Your task to perform on an android device: turn on wifi Image 0: 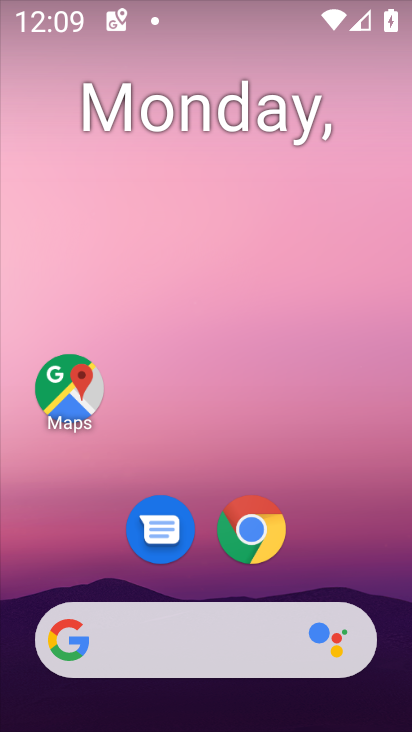
Step 0: drag from (245, 663) to (316, 72)
Your task to perform on an android device: turn on wifi Image 1: 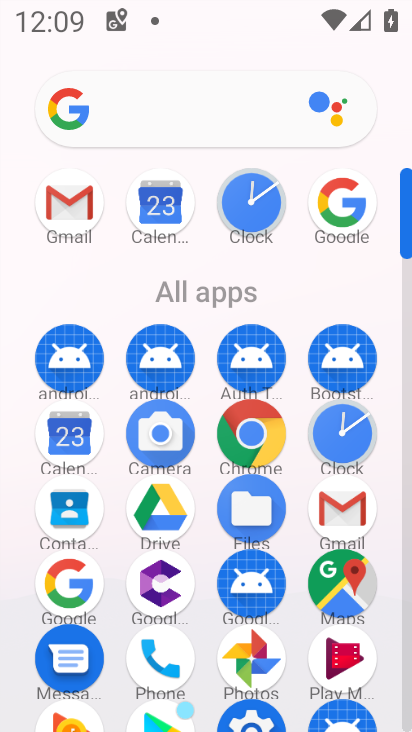
Step 1: drag from (276, 575) to (307, 68)
Your task to perform on an android device: turn on wifi Image 2: 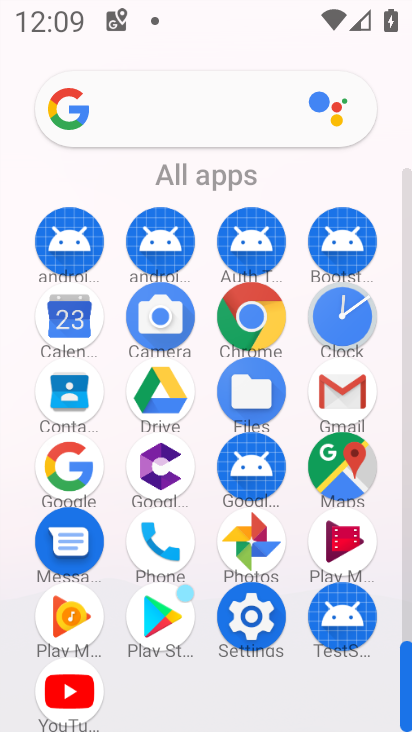
Step 2: click (253, 616)
Your task to perform on an android device: turn on wifi Image 3: 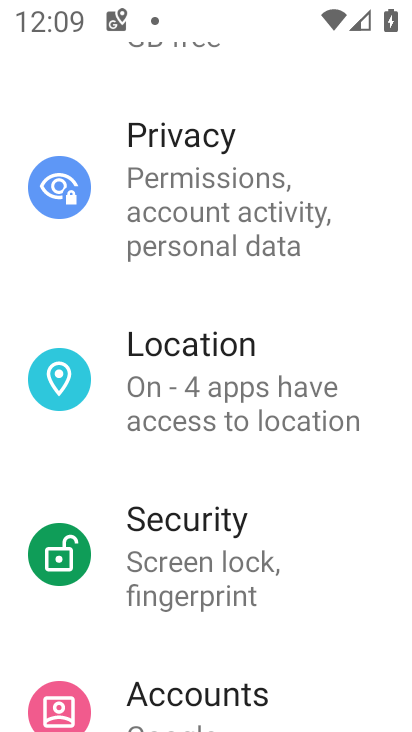
Step 3: drag from (239, 220) to (68, 720)
Your task to perform on an android device: turn on wifi Image 4: 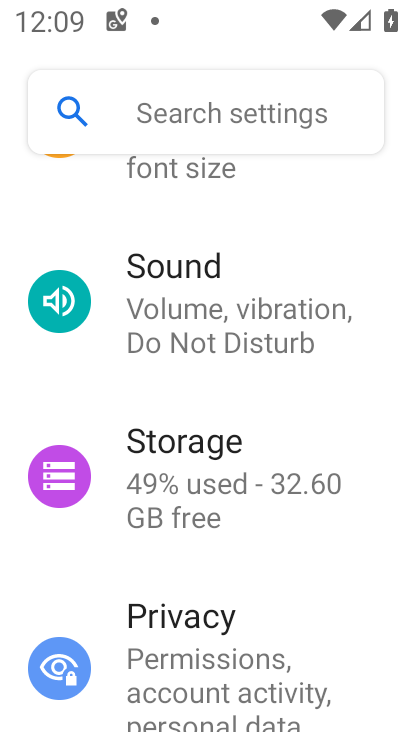
Step 4: drag from (159, 224) to (6, 455)
Your task to perform on an android device: turn on wifi Image 5: 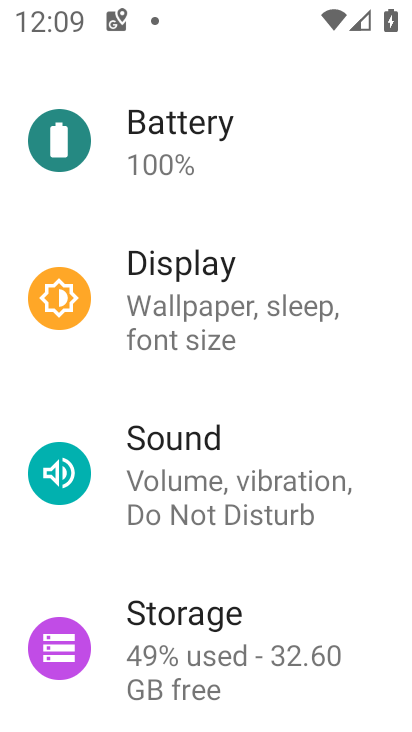
Step 5: drag from (205, 210) to (147, 725)
Your task to perform on an android device: turn on wifi Image 6: 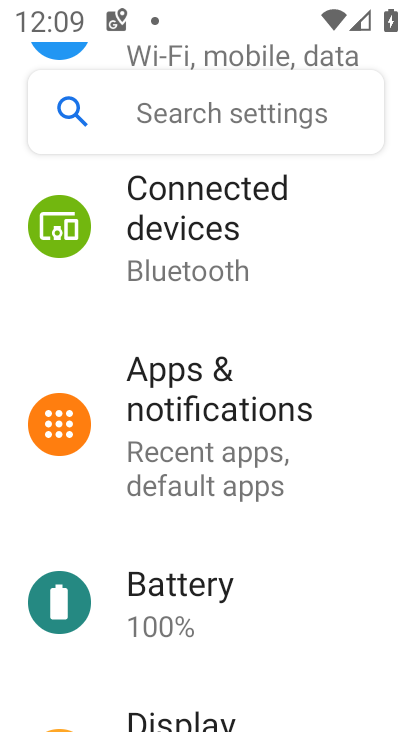
Step 6: drag from (200, 220) to (290, 722)
Your task to perform on an android device: turn on wifi Image 7: 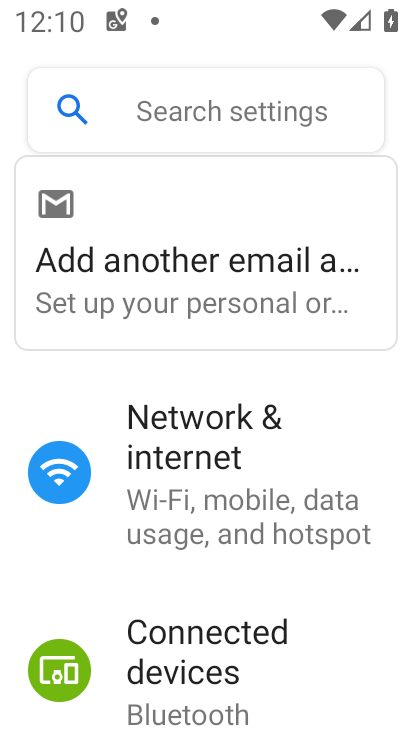
Step 7: click (206, 442)
Your task to perform on an android device: turn on wifi Image 8: 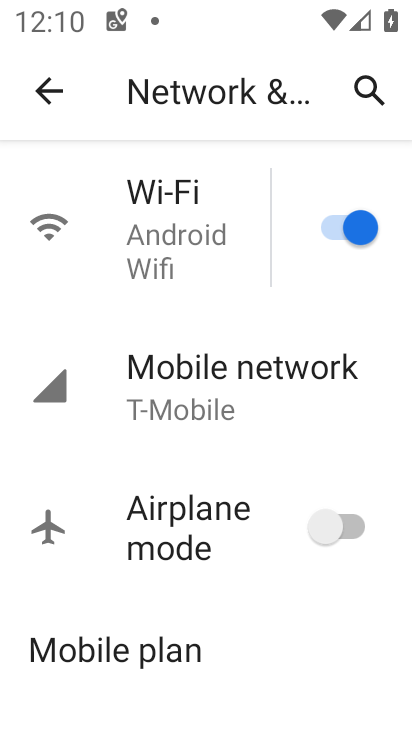
Step 8: task complete